Your task to perform on an android device: Open the web browser Image 0: 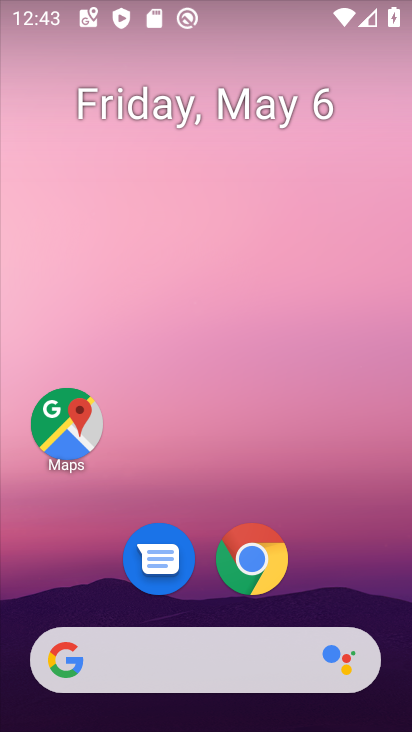
Step 0: click (244, 563)
Your task to perform on an android device: Open the web browser Image 1: 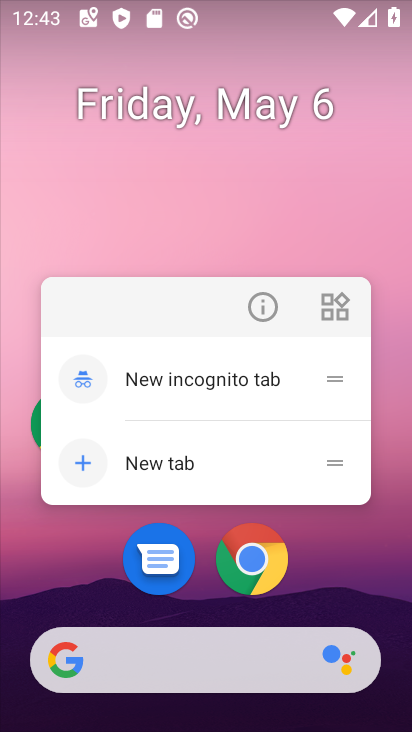
Step 1: click (244, 563)
Your task to perform on an android device: Open the web browser Image 2: 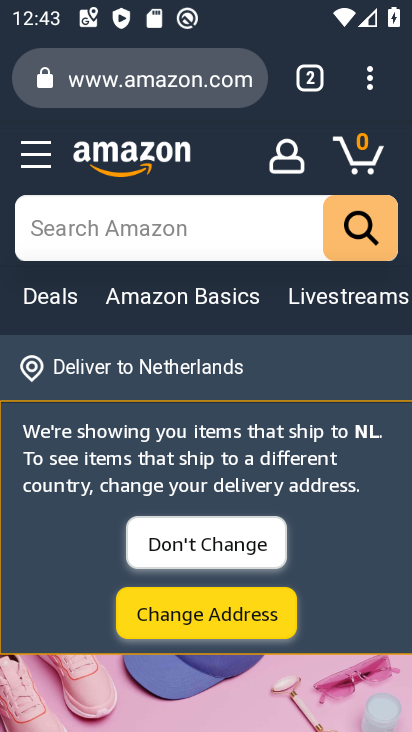
Step 2: task complete